Your task to perform on an android device: Is it going to rain tomorrow? Image 0: 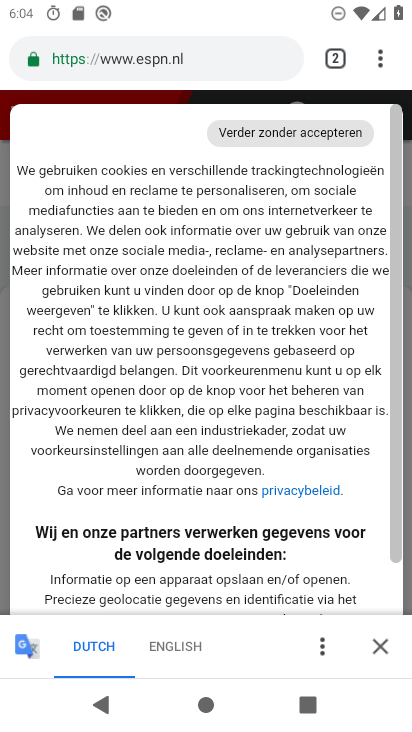
Step 0: press home button
Your task to perform on an android device: Is it going to rain tomorrow? Image 1: 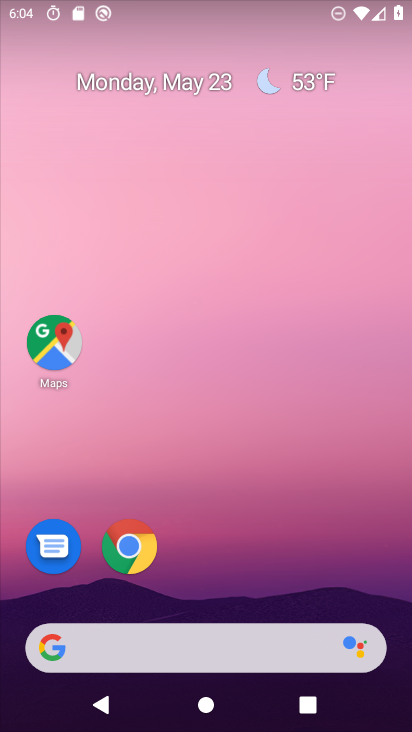
Step 1: click (315, 78)
Your task to perform on an android device: Is it going to rain tomorrow? Image 2: 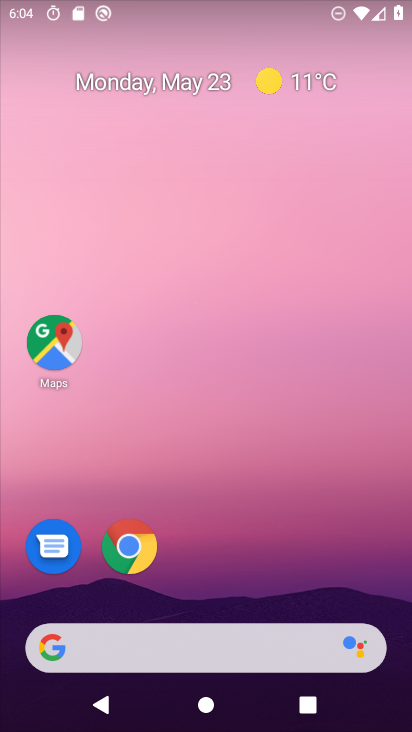
Step 2: click (300, 86)
Your task to perform on an android device: Is it going to rain tomorrow? Image 3: 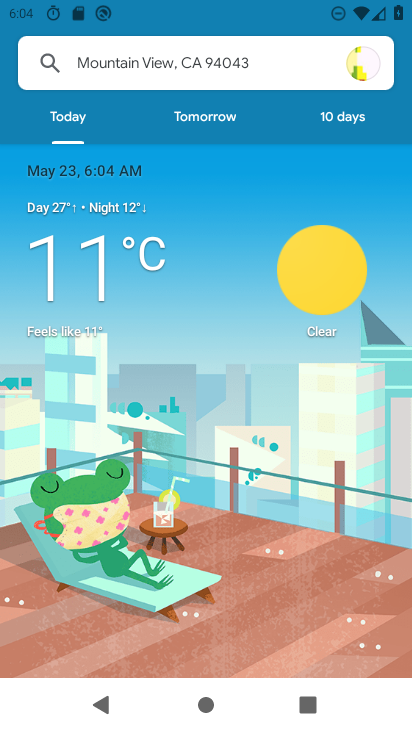
Step 3: click (217, 114)
Your task to perform on an android device: Is it going to rain tomorrow? Image 4: 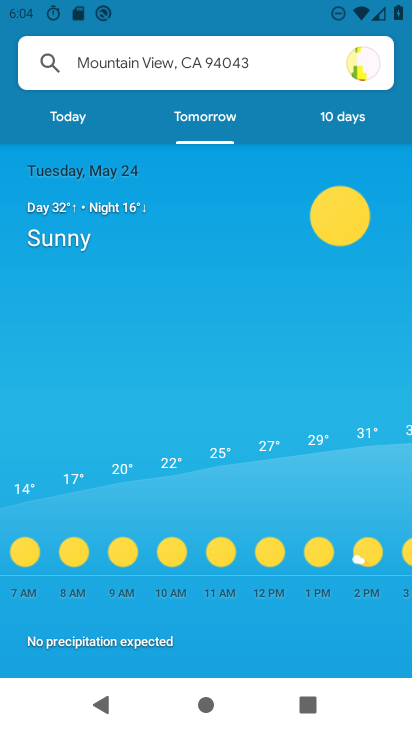
Step 4: task complete